Your task to perform on an android device: Do I have any events this weekend? Image 0: 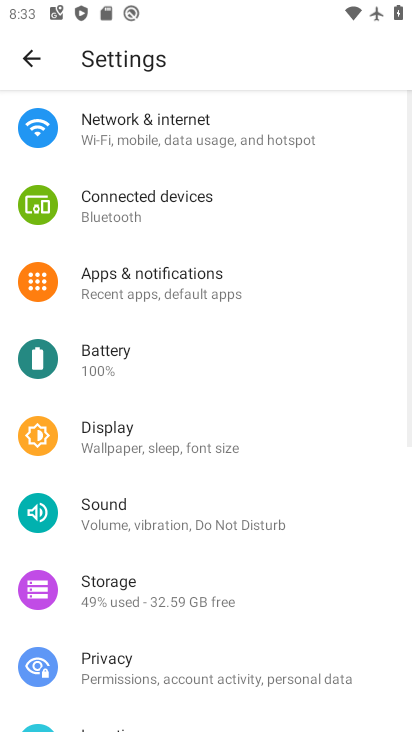
Step 0: press home button
Your task to perform on an android device: Do I have any events this weekend? Image 1: 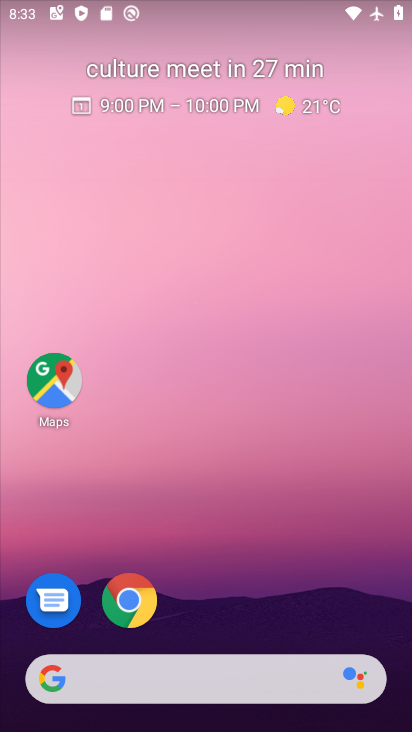
Step 1: drag from (367, 621) to (290, 112)
Your task to perform on an android device: Do I have any events this weekend? Image 2: 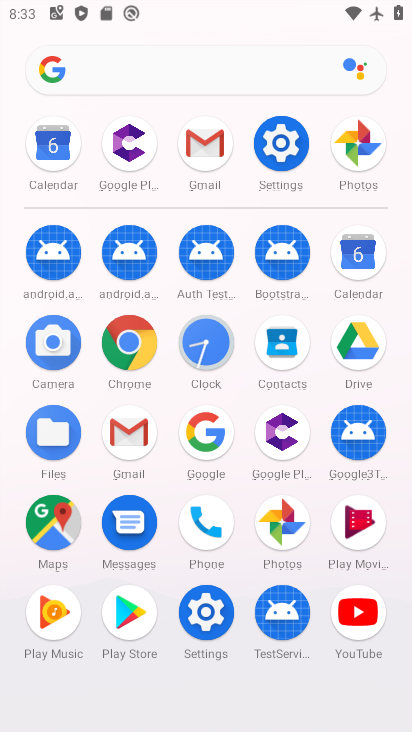
Step 2: click (360, 252)
Your task to perform on an android device: Do I have any events this weekend? Image 3: 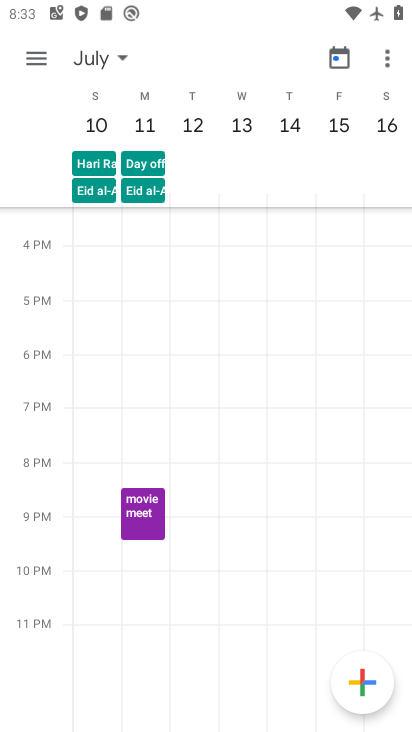
Step 3: click (36, 54)
Your task to perform on an android device: Do I have any events this weekend? Image 4: 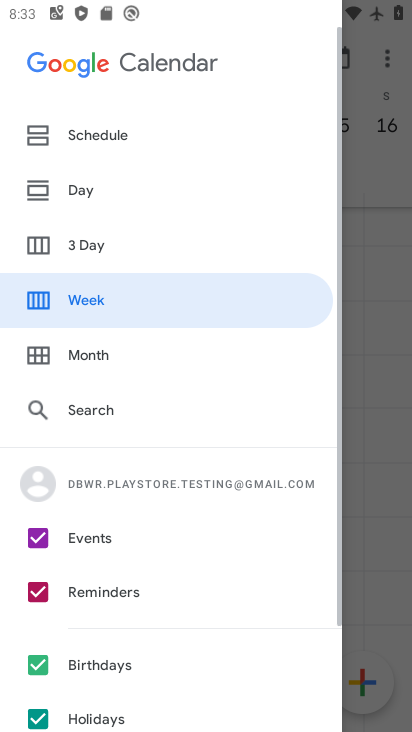
Step 4: click (97, 289)
Your task to perform on an android device: Do I have any events this weekend? Image 5: 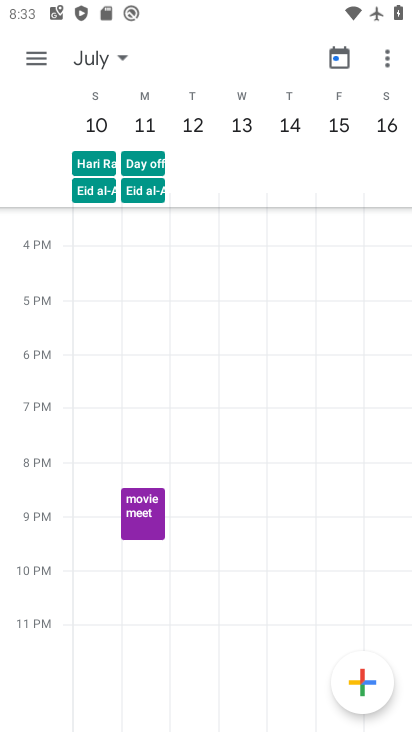
Step 5: click (121, 50)
Your task to perform on an android device: Do I have any events this weekend? Image 6: 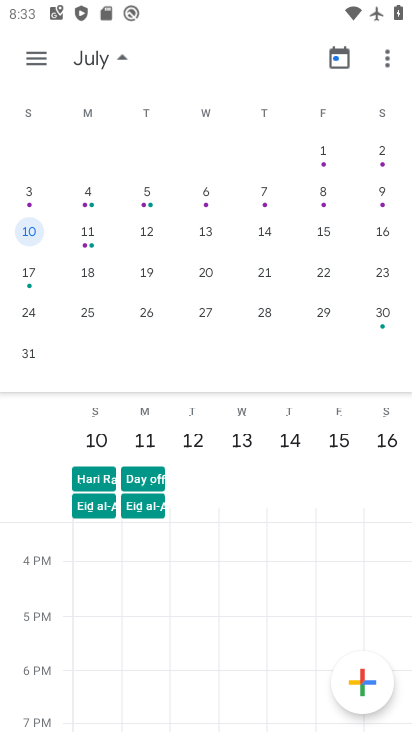
Step 6: drag from (86, 310) to (393, 311)
Your task to perform on an android device: Do I have any events this weekend? Image 7: 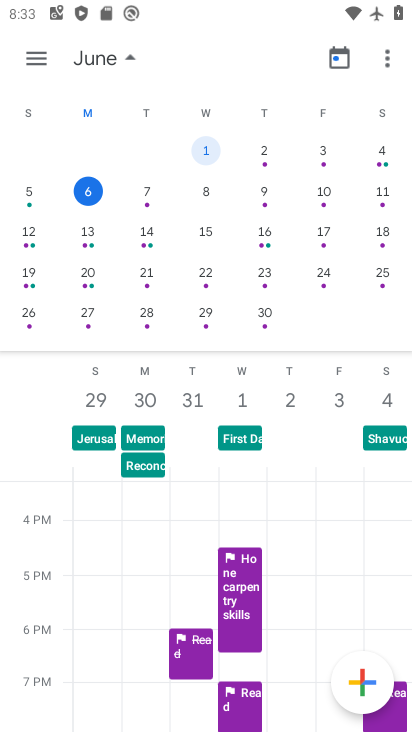
Step 7: click (86, 186)
Your task to perform on an android device: Do I have any events this weekend? Image 8: 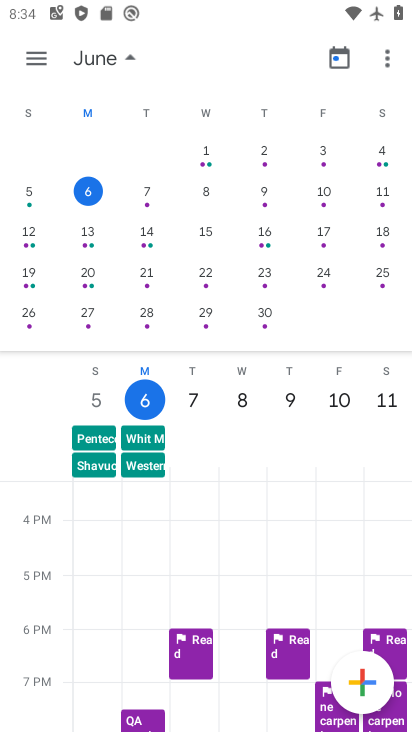
Step 8: task complete